Your task to perform on an android device: check out phone information Image 0: 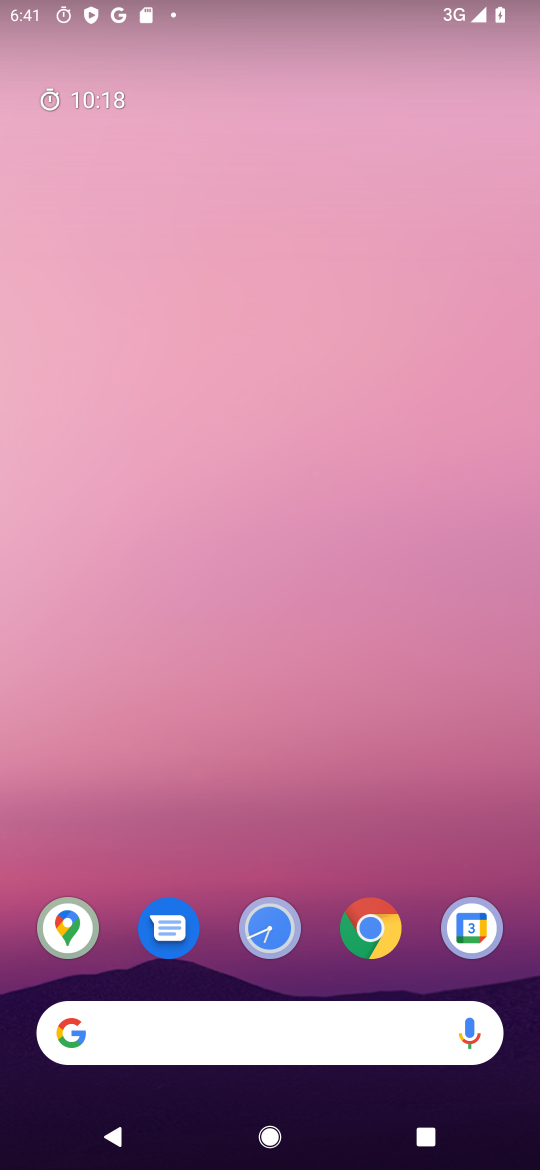
Step 0: press home button
Your task to perform on an android device: check out phone information Image 1: 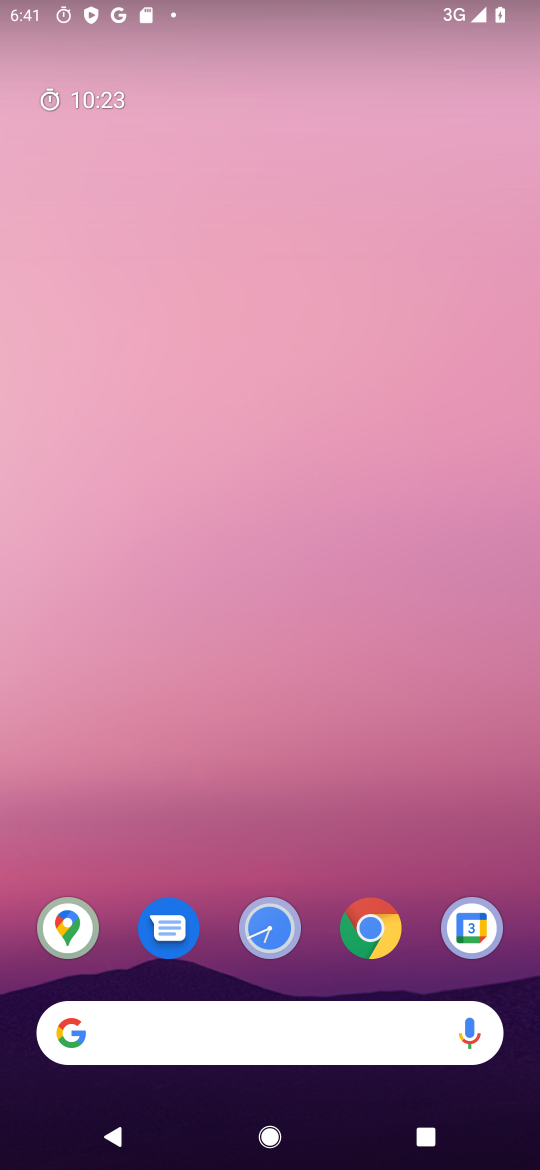
Step 1: drag from (305, 863) to (333, 142)
Your task to perform on an android device: check out phone information Image 2: 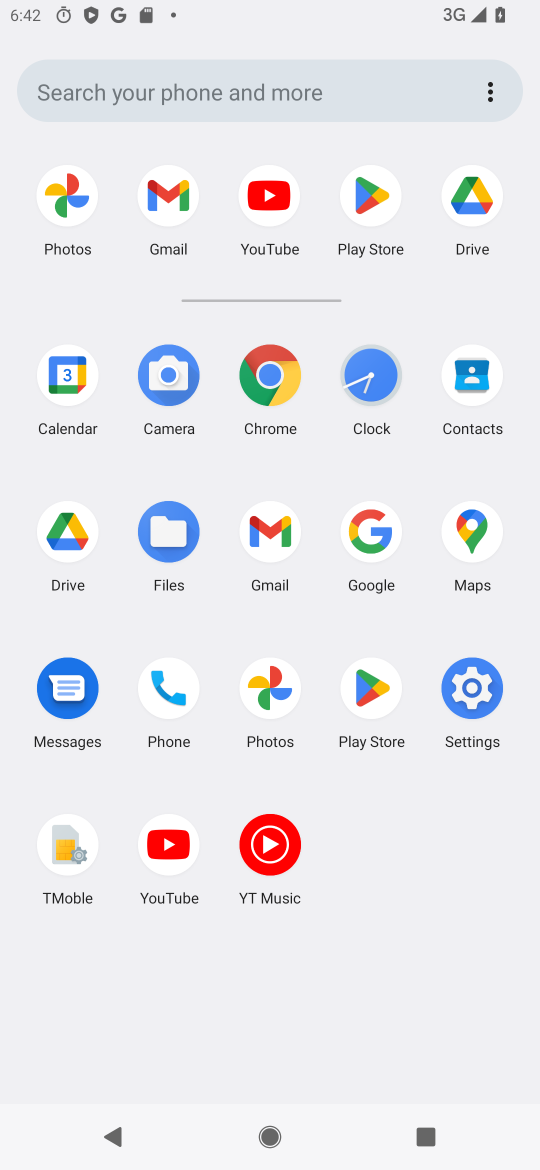
Step 2: click (172, 688)
Your task to perform on an android device: check out phone information Image 3: 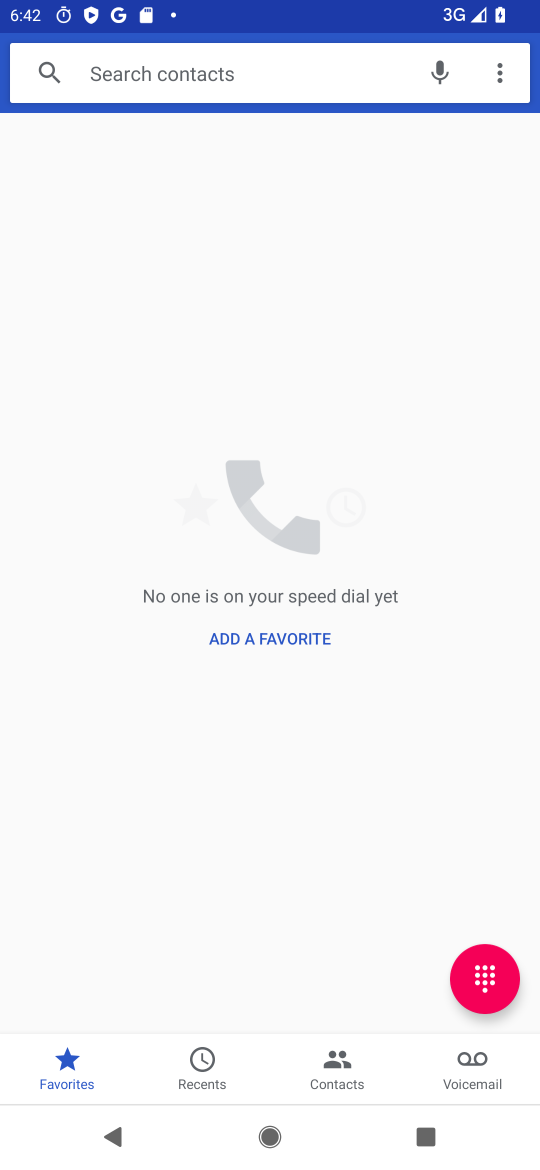
Step 3: task complete